Your task to perform on an android device: Do I have any events tomorrow? Image 0: 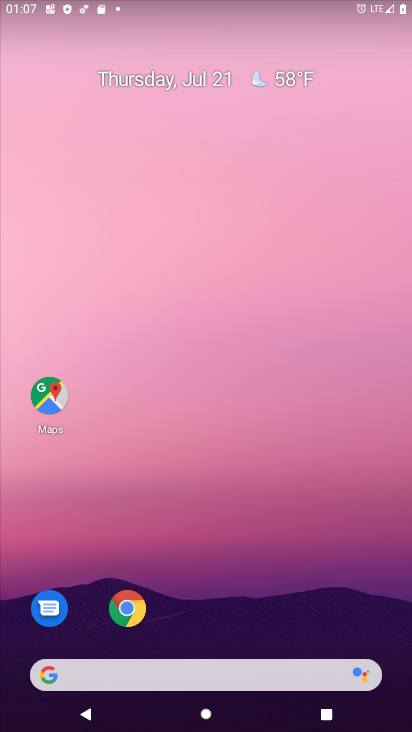
Step 0: press home button
Your task to perform on an android device: Do I have any events tomorrow? Image 1: 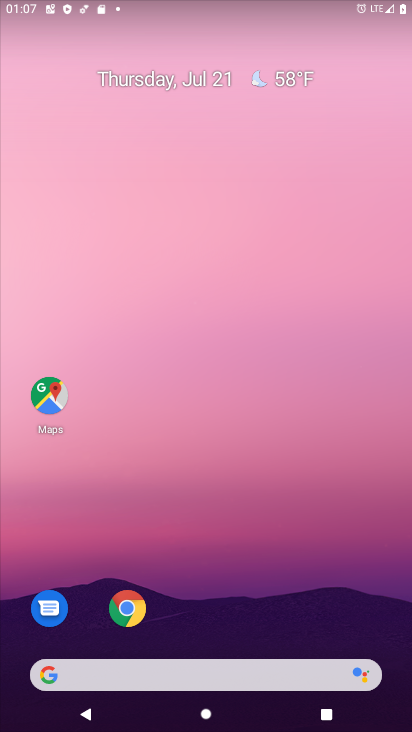
Step 1: drag from (221, 633) to (247, 30)
Your task to perform on an android device: Do I have any events tomorrow? Image 2: 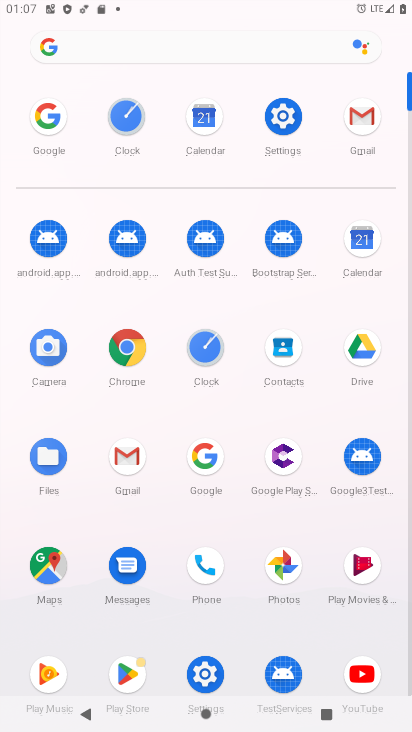
Step 2: click (362, 236)
Your task to perform on an android device: Do I have any events tomorrow? Image 3: 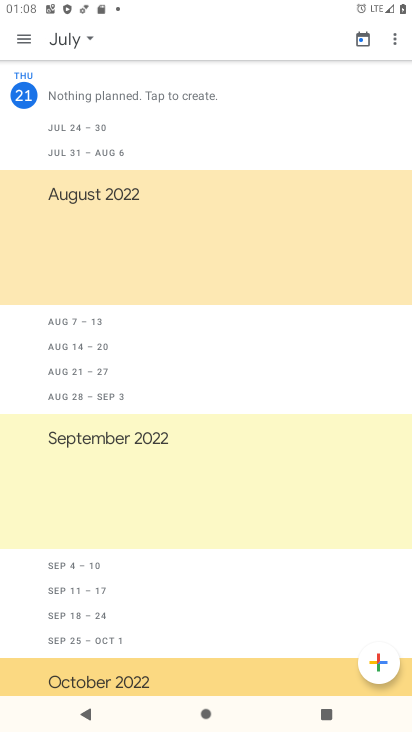
Step 3: click (83, 43)
Your task to perform on an android device: Do I have any events tomorrow? Image 4: 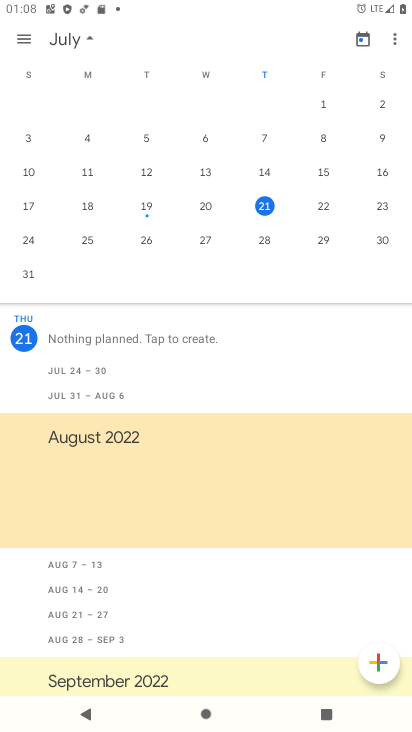
Step 4: click (21, 30)
Your task to perform on an android device: Do I have any events tomorrow? Image 5: 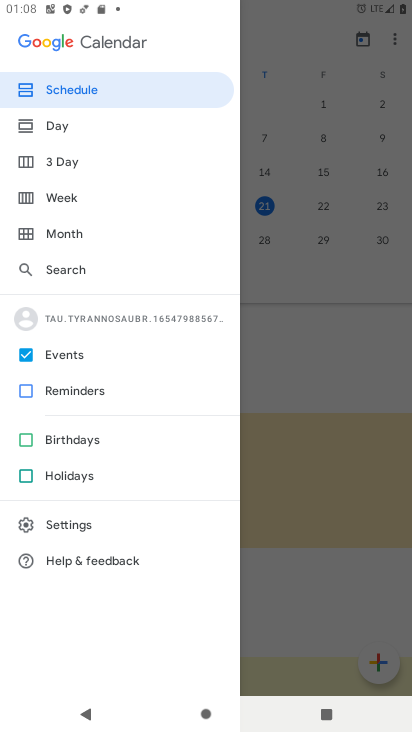
Step 5: click (66, 87)
Your task to perform on an android device: Do I have any events tomorrow? Image 6: 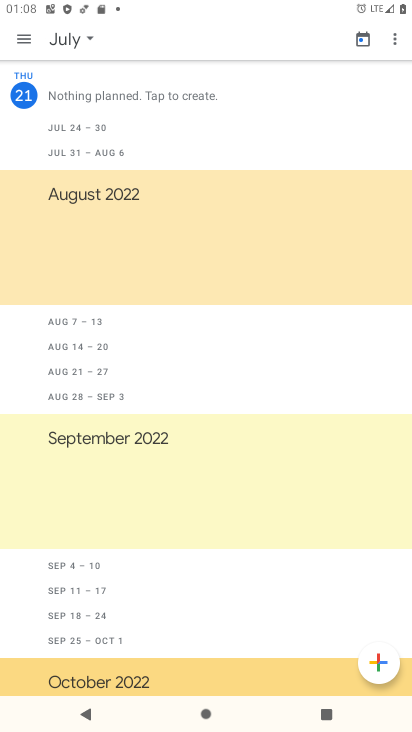
Step 6: click (86, 33)
Your task to perform on an android device: Do I have any events tomorrow? Image 7: 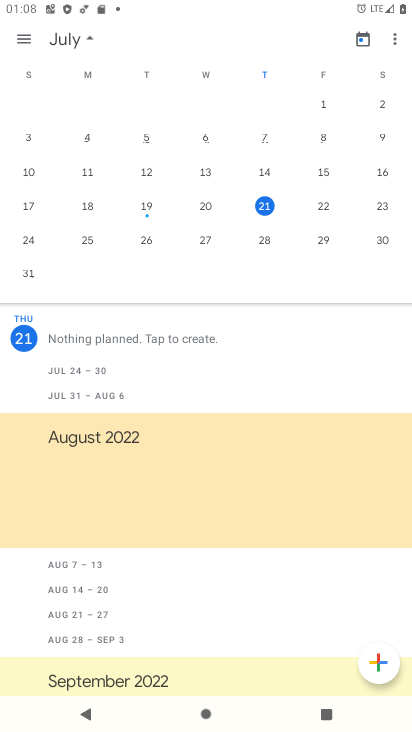
Step 7: click (320, 205)
Your task to perform on an android device: Do I have any events tomorrow? Image 8: 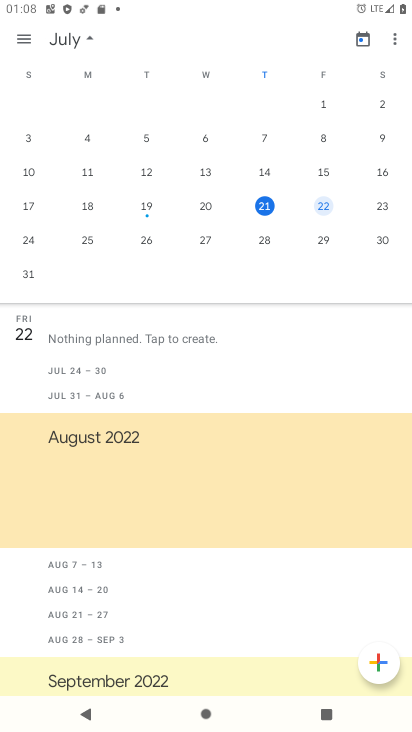
Step 8: click (30, 327)
Your task to perform on an android device: Do I have any events tomorrow? Image 9: 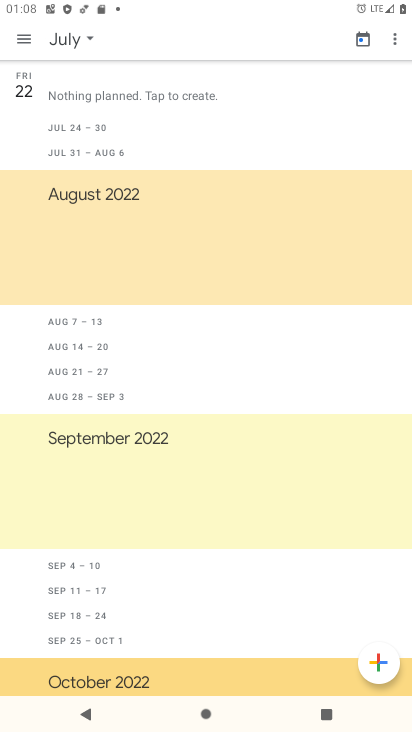
Step 9: click (31, 85)
Your task to perform on an android device: Do I have any events tomorrow? Image 10: 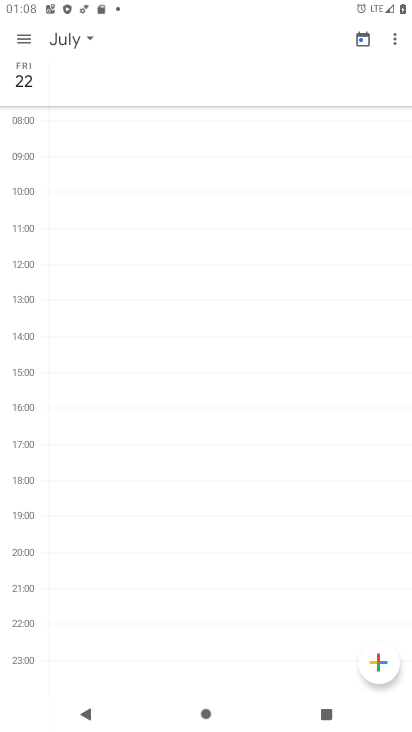
Step 10: click (31, 78)
Your task to perform on an android device: Do I have any events tomorrow? Image 11: 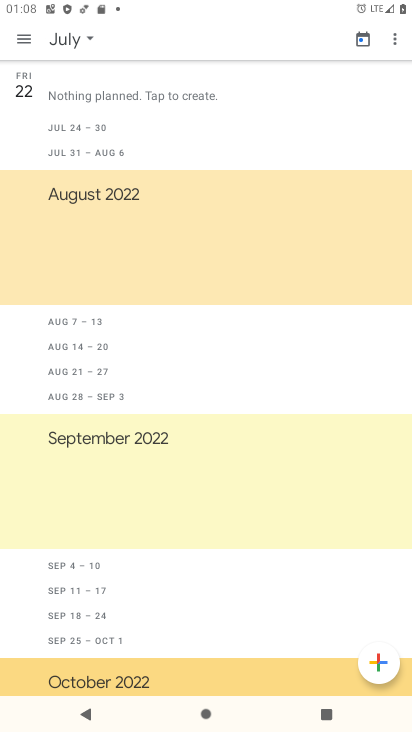
Step 11: click (34, 90)
Your task to perform on an android device: Do I have any events tomorrow? Image 12: 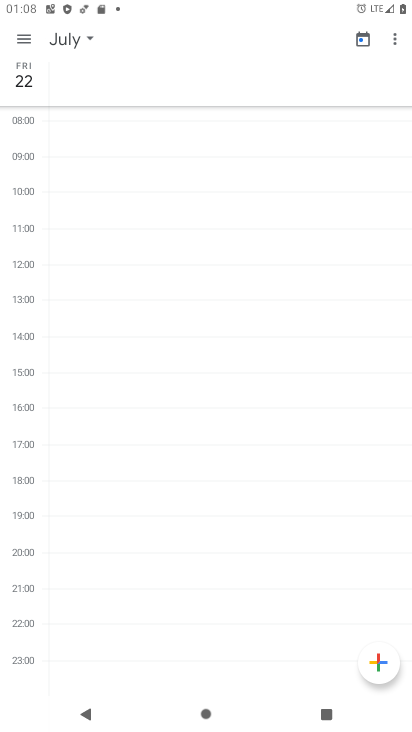
Step 12: task complete